Your task to perform on an android device: change the clock display to show seconds Image 0: 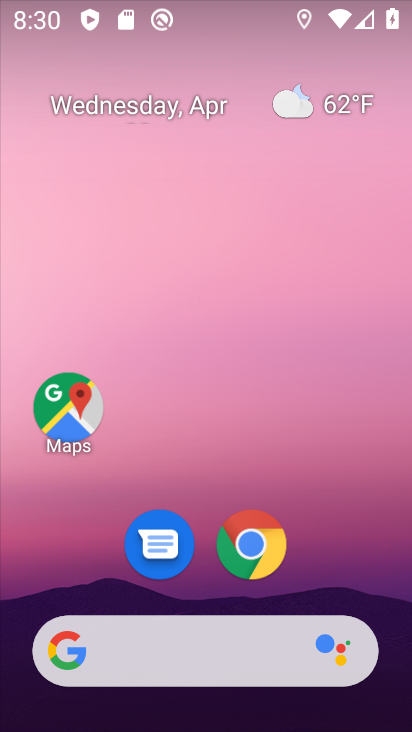
Step 0: drag from (317, 530) to (126, 90)
Your task to perform on an android device: change the clock display to show seconds Image 1: 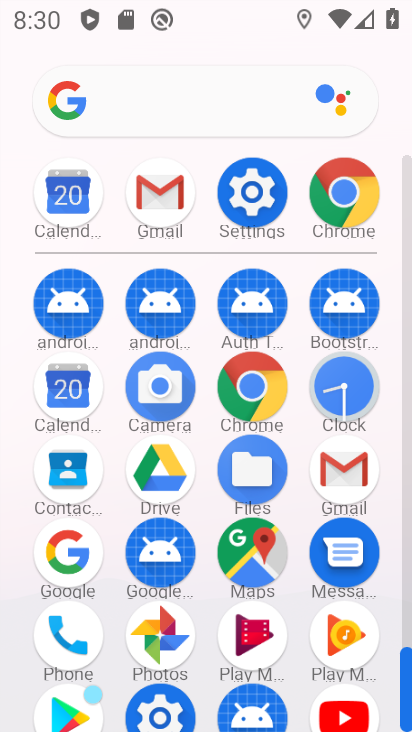
Step 1: click (347, 382)
Your task to perform on an android device: change the clock display to show seconds Image 2: 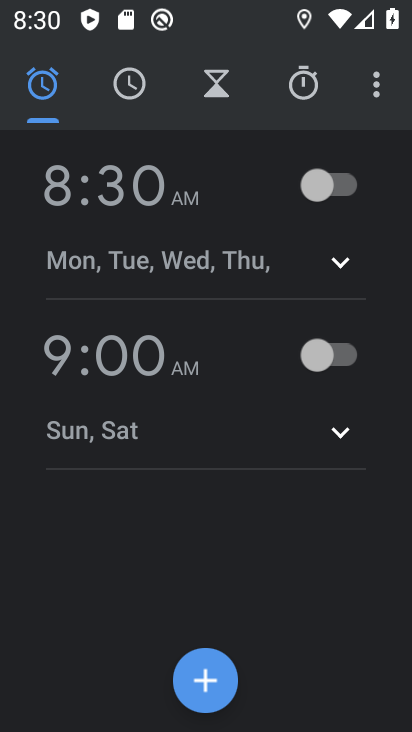
Step 2: click (373, 91)
Your task to perform on an android device: change the clock display to show seconds Image 3: 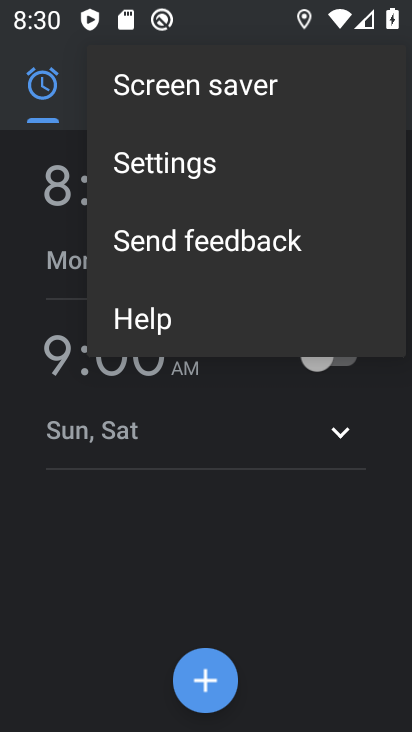
Step 3: click (188, 169)
Your task to perform on an android device: change the clock display to show seconds Image 4: 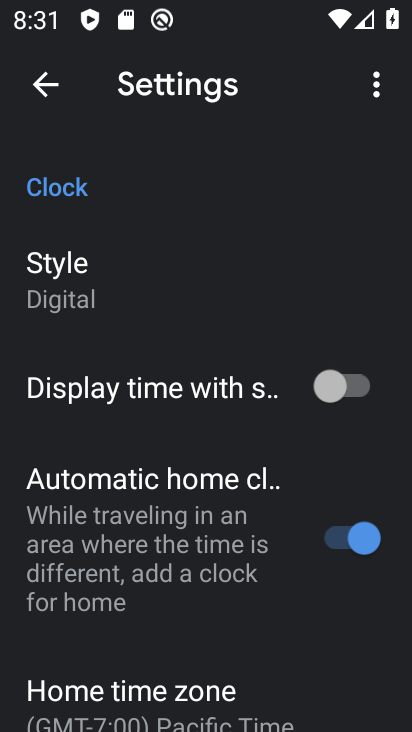
Step 4: click (326, 391)
Your task to perform on an android device: change the clock display to show seconds Image 5: 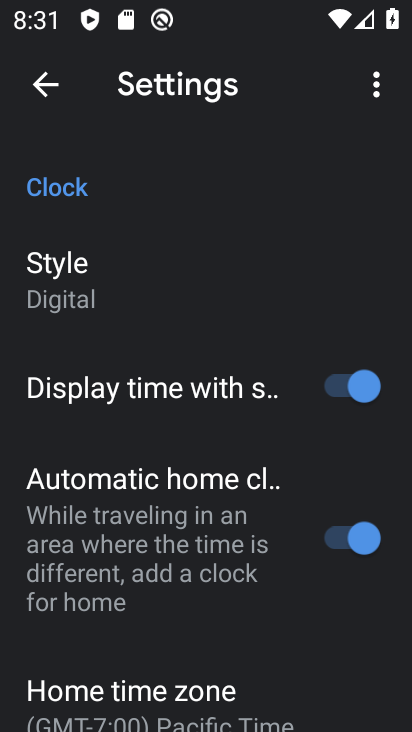
Step 5: task complete